Your task to perform on an android device: add a contact Image 0: 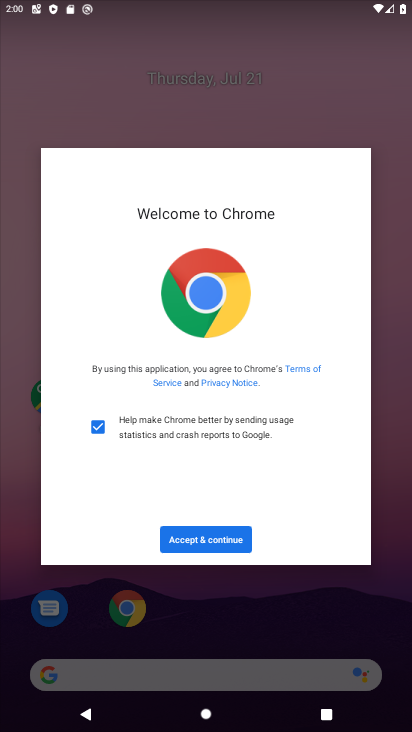
Step 0: press home button
Your task to perform on an android device: add a contact Image 1: 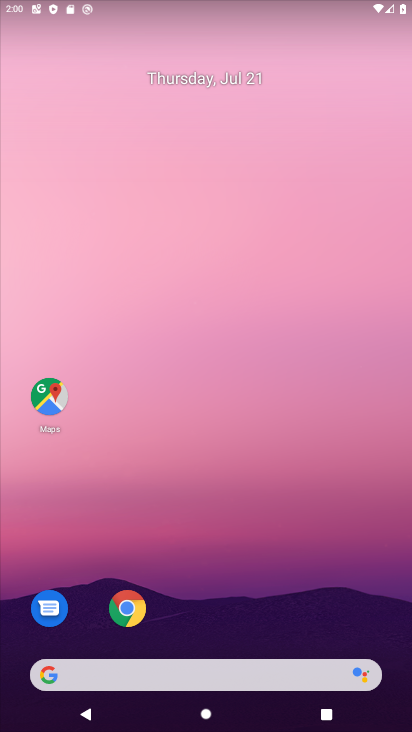
Step 1: drag from (227, 705) to (227, 268)
Your task to perform on an android device: add a contact Image 2: 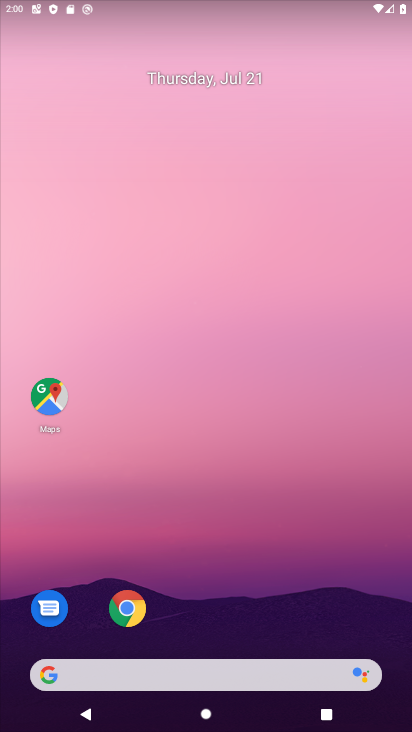
Step 2: drag from (231, 718) to (247, 126)
Your task to perform on an android device: add a contact Image 3: 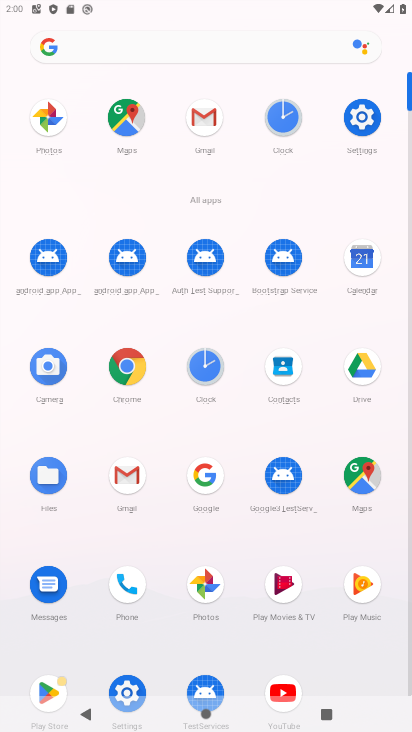
Step 3: click (289, 372)
Your task to perform on an android device: add a contact Image 4: 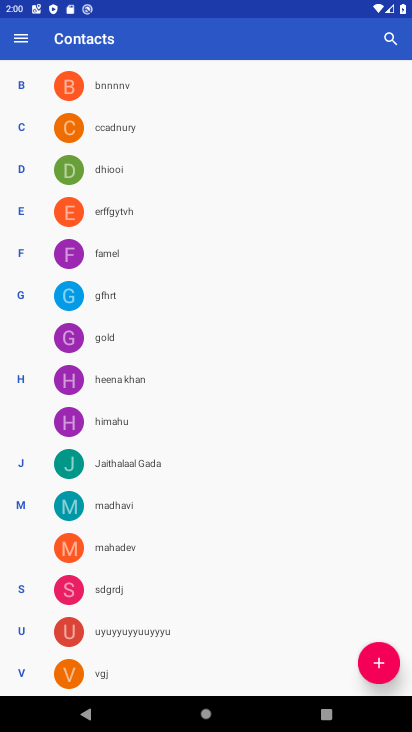
Step 4: click (377, 660)
Your task to perform on an android device: add a contact Image 5: 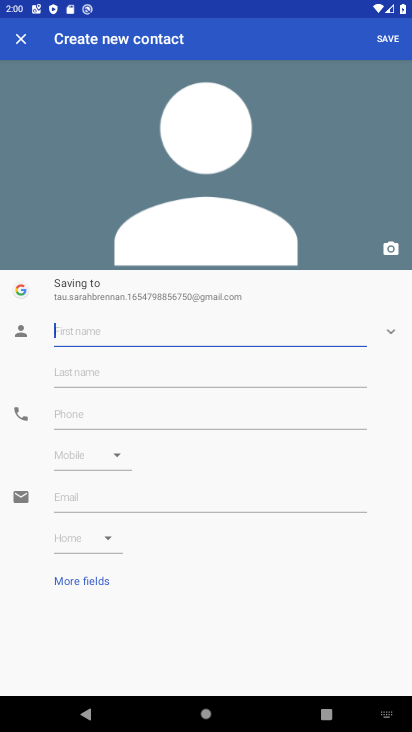
Step 5: type "robo"
Your task to perform on an android device: add a contact Image 6: 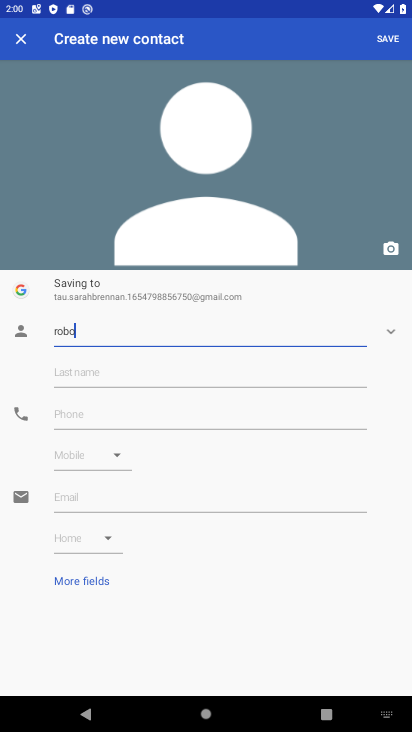
Step 6: type ""
Your task to perform on an android device: add a contact Image 7: 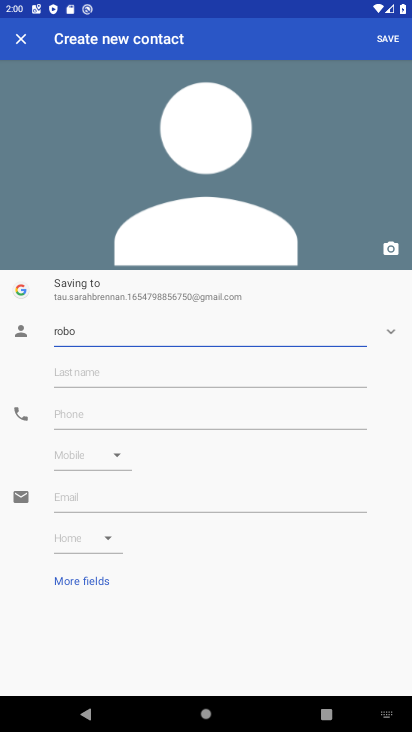
Step 7: click (150, 413)
Your task to perform on an android device: add a contact Image 8: 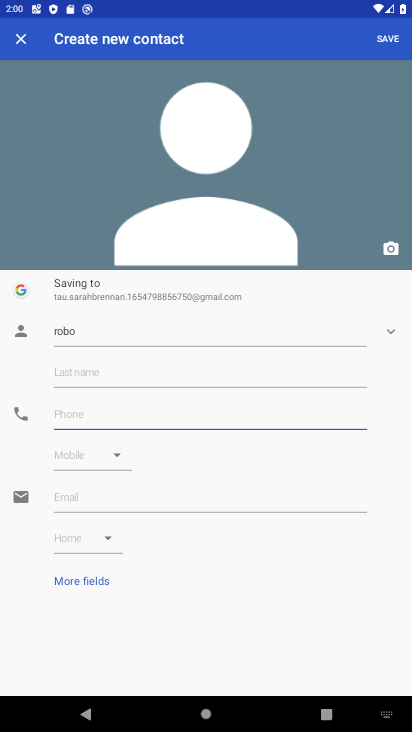
Step 8: type ""
Your task to perform on an android device: add a contact Image 9: 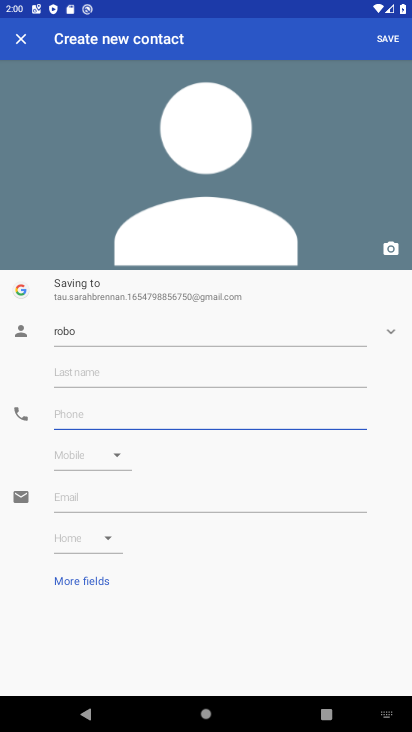
Step 9: type "87878"
Your task to perform on an android device: add a contact Image 10: 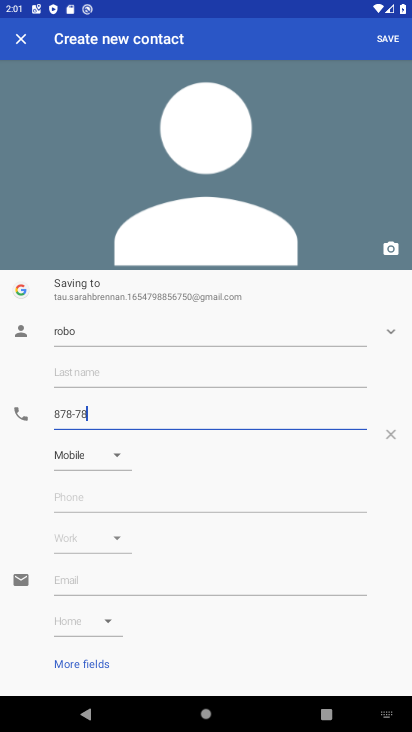
Step 10: type ""
Your task to perform on an android device: add a contact Image 11: 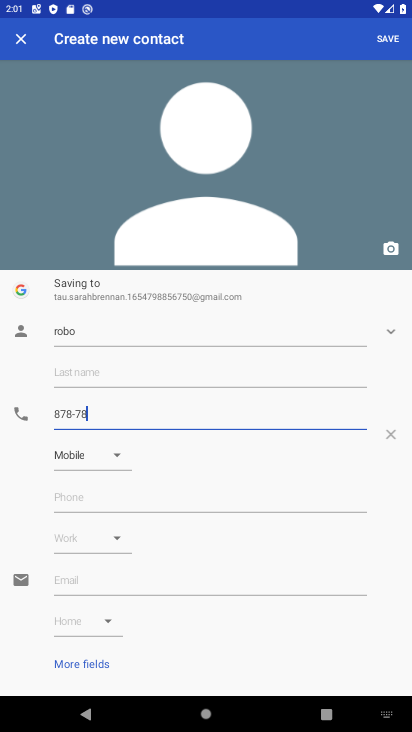
Step 11: click (388, 41)
Your task to perform on an android device: add a contact Image 12: 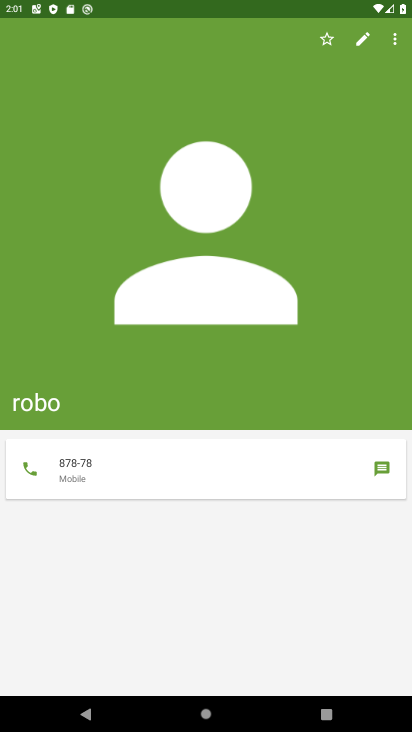
Step 12: task complete